Your task to perform on an android device: Open Yahoo.com Image 0: 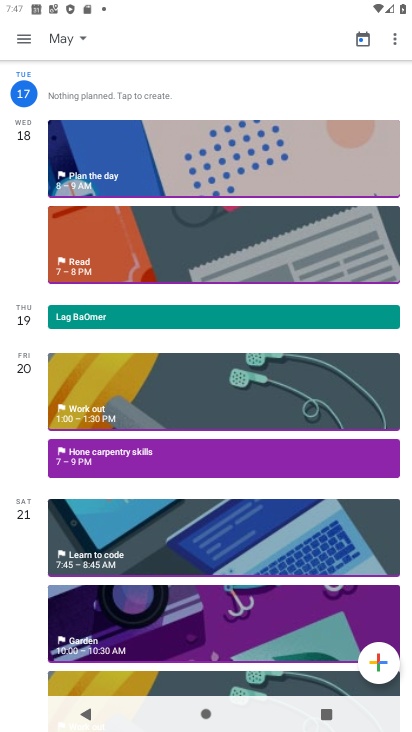
Step 0: press home button
Your task to perform on an android device: Open Yahoo.com Image 1: 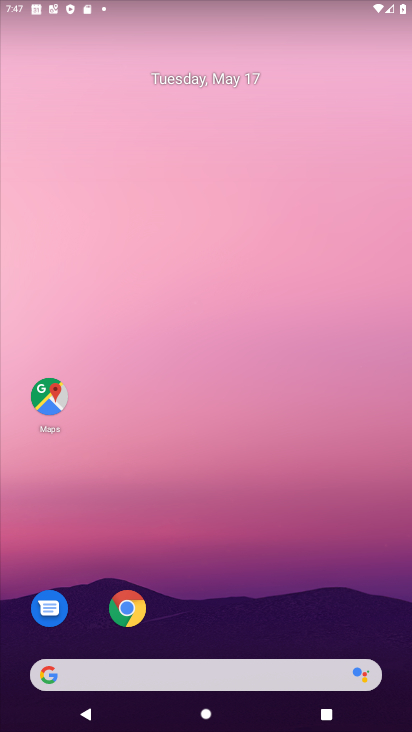
Step 1: click (127, 613)
Your task to perform on an android device: Open Yahoo.com Image 2: 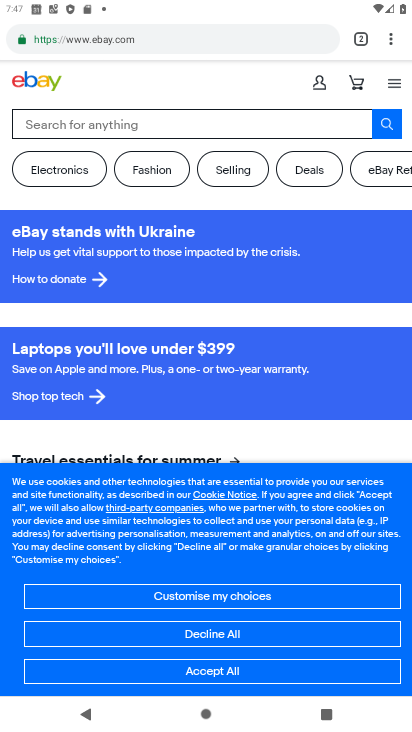
Step 2: click (361, 37)
Your task to perform on an android device: Open Yahoo.com Image 3: 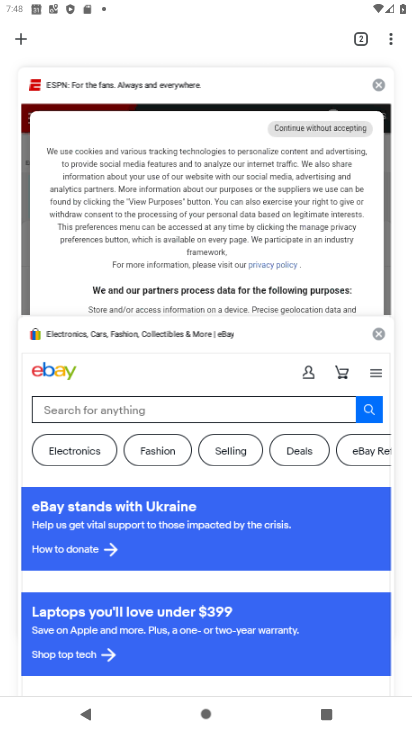
Step 3: click (21, 41)
Your task to perform on an android device: Open Yahoo.com Image 4: 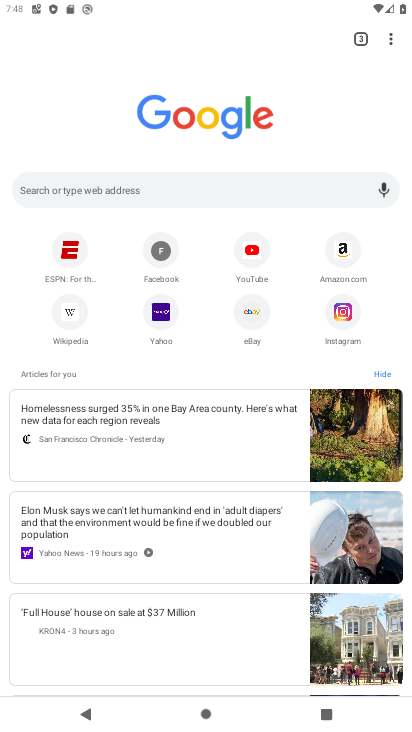
Step 4: click (165, 317)
Your task to perform on an android device: Open Yahoo.com Image 5: 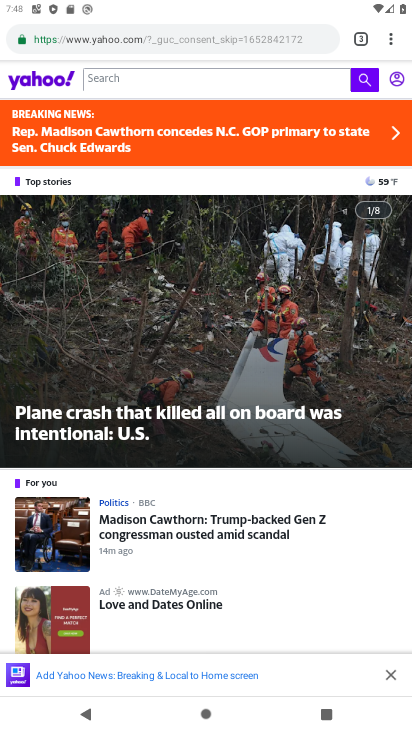
Step 5: task complete